Your task to perform on an android device: Go to Amazon Image 0: 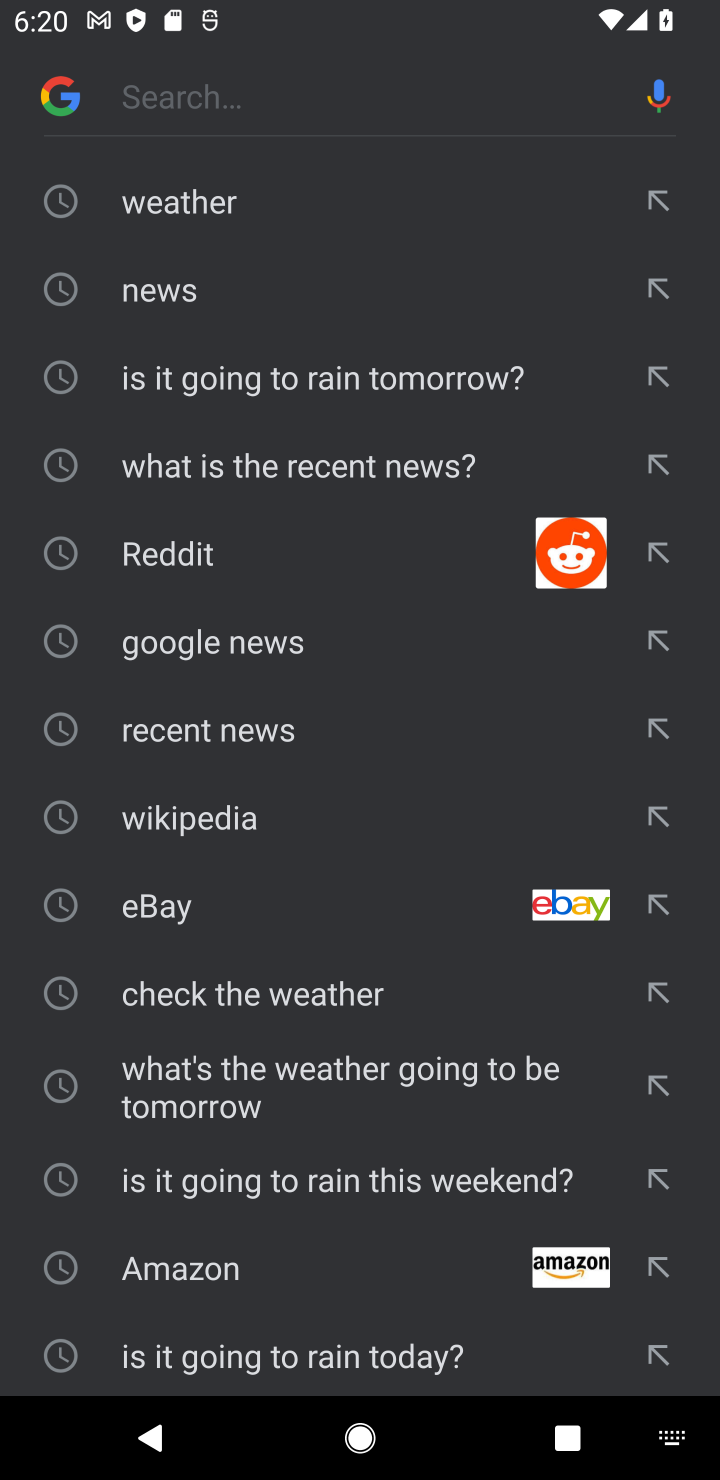
Step 0: click (435, 1295)
Your task to perform on an android device: Go to Amazon Image 1: 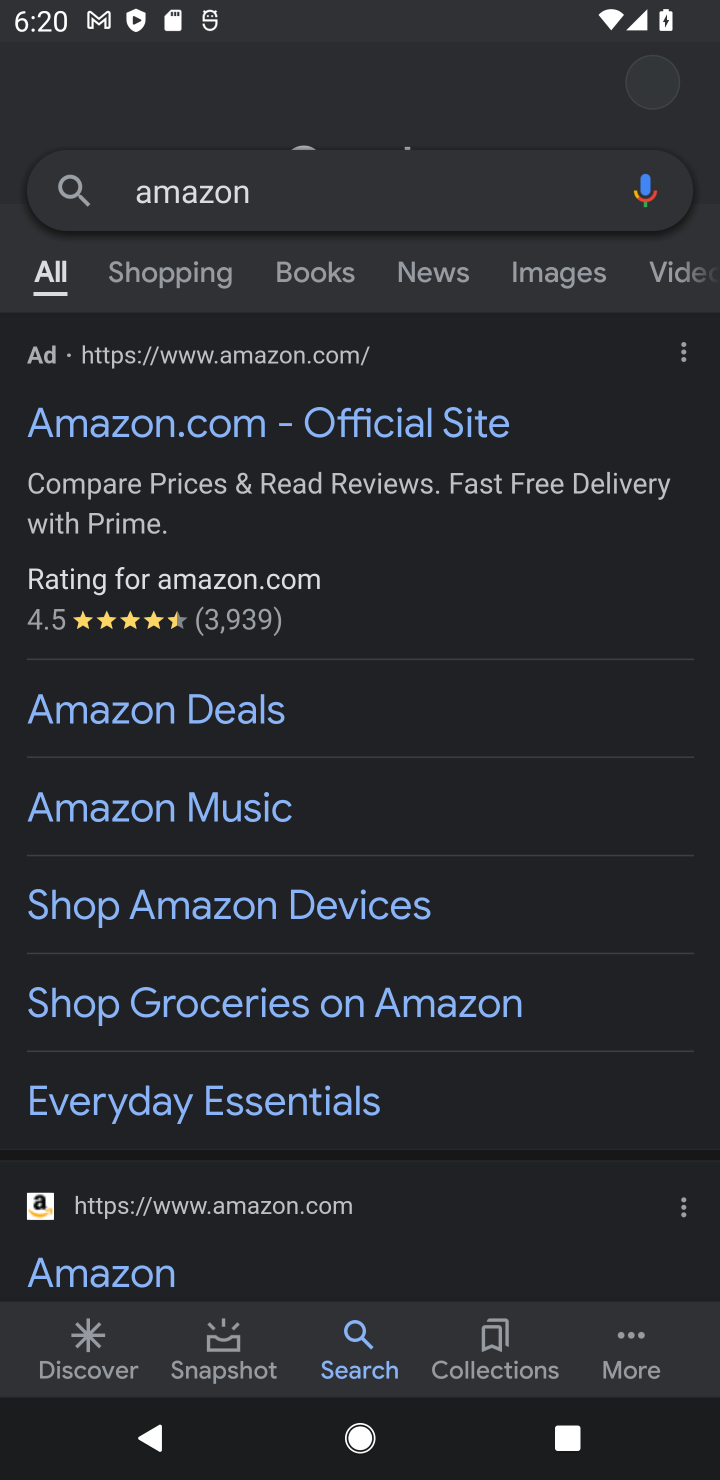
Step 1: task complete